Your task to perform on an android device: turn smart compose on in the gmail app Image 0: 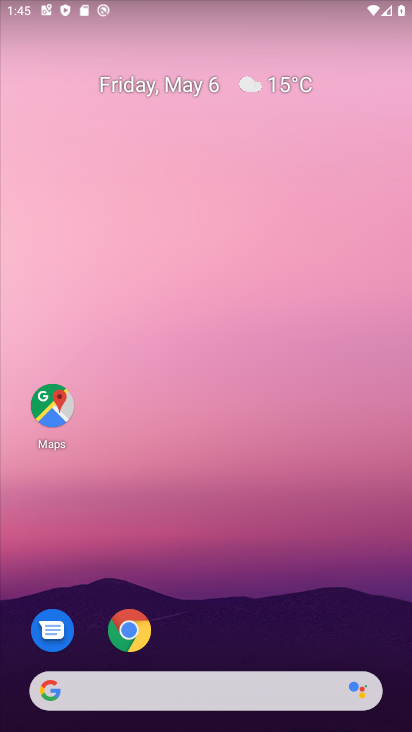
Step 0: drag from (219, 647) to (292, 29)
Your task to perform on an android device: turn smart compose on in the gmail app Image 1: 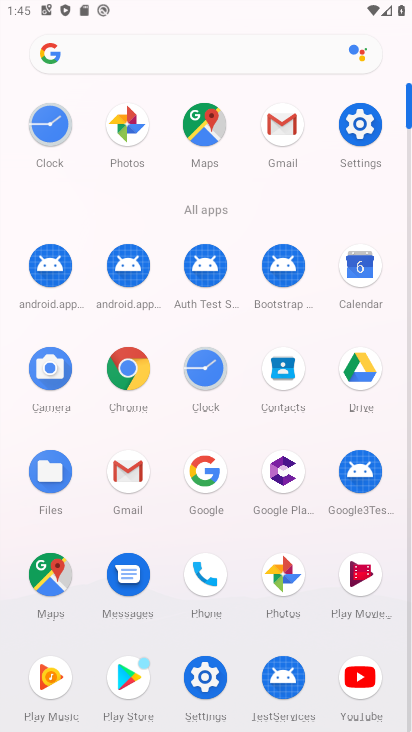
Step 1: click (284, 131)
Your task to perform on an android device: turn smart compose on in the gmail app Image 2: 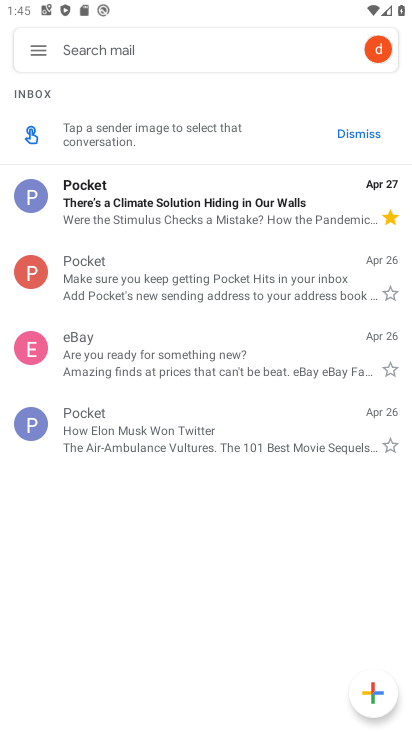
Step 2: click (33, 50)
Your task to perform on an android device: turn smart compose on in the gmail app Image 3: 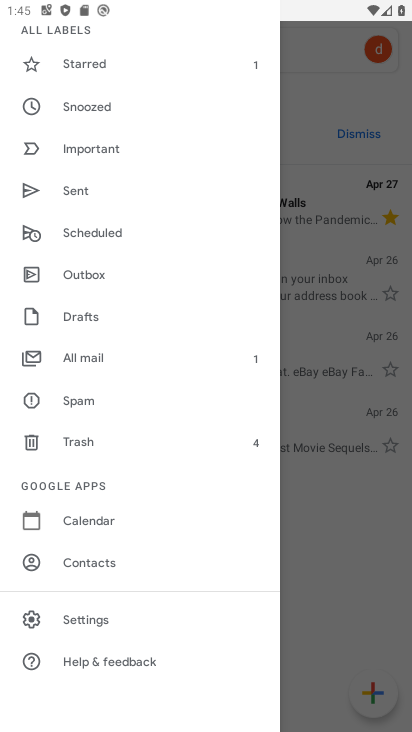
Step 3: click (80, 620)
Your task to perform on an android device: turn smart compose on in the gmail app Image 4: 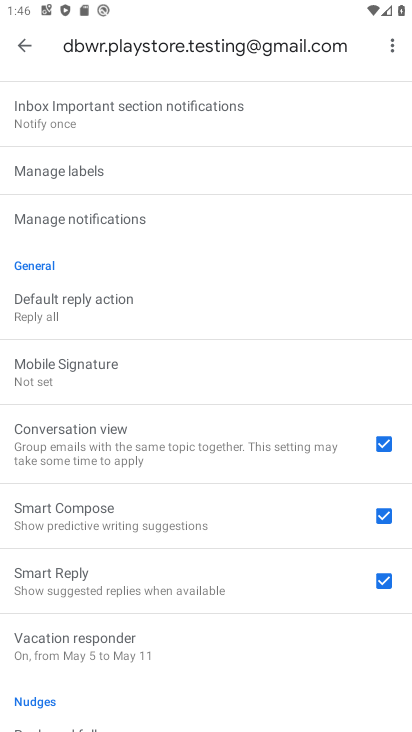
Step 4: task complete